Your task to perform on an android device: change the clock display to digital Image 0: 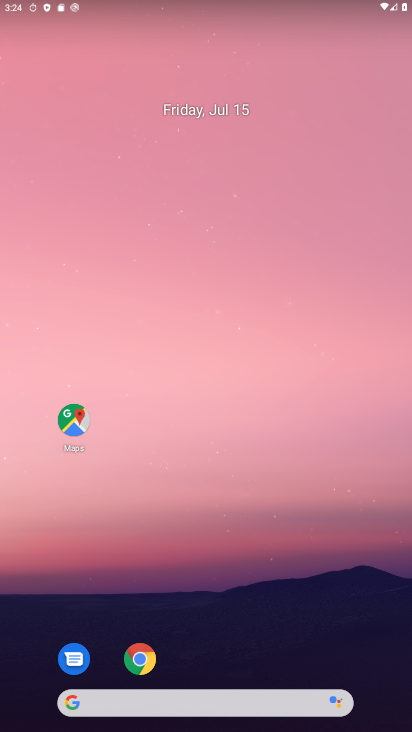
Step 0: drag from (246, 638) to (249, 4)
Your task to perform on an android device: change the clock display to digital Image 1: 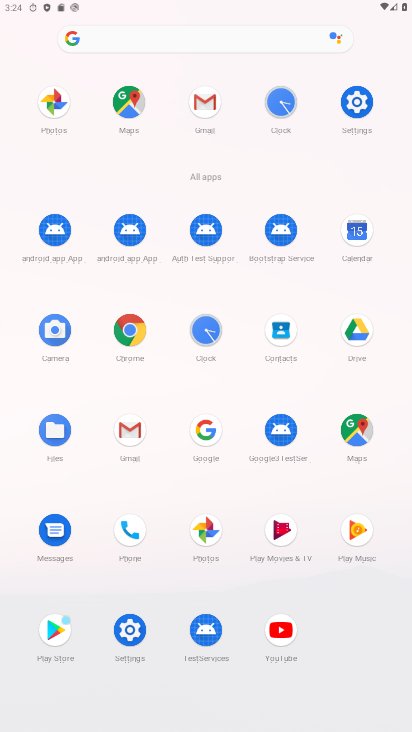
Step 1: click (202, 333)
Your task to perform on an android device: change the clock display to digital Image 2: 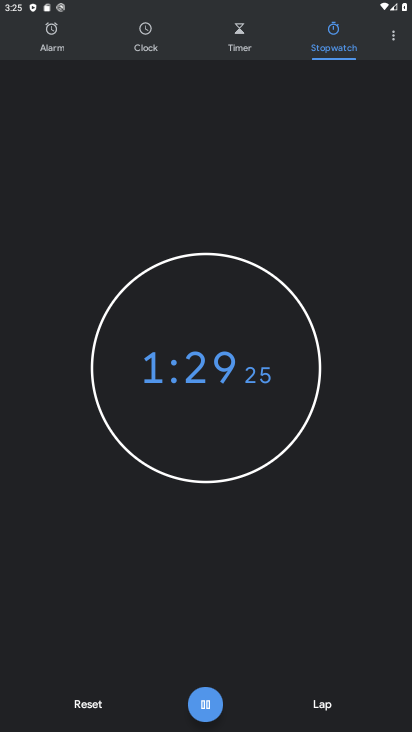
Step 2: click (395, 42)
Your task to perform on an android device: change the clock display to digital Image 3: 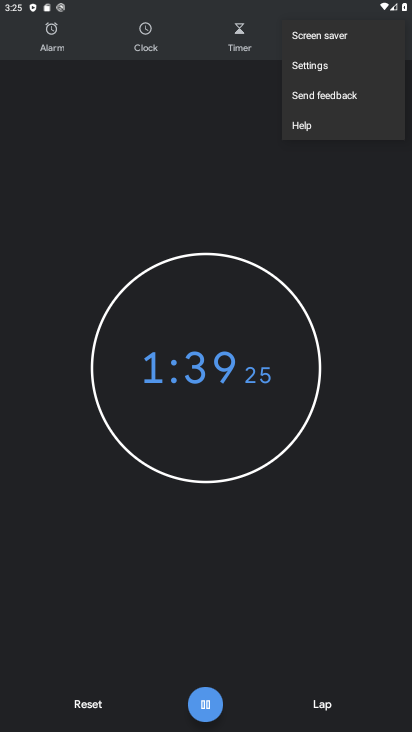
Step 3: click (318, 66)
Your task to perform on an android device: change the clock display to digital Image 4: 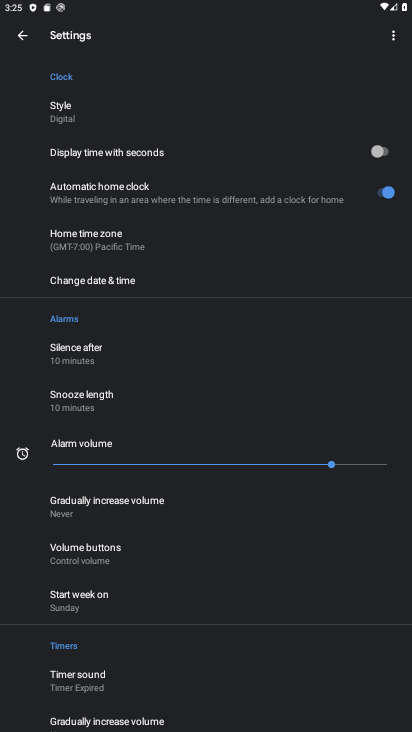
Step 4: click (76, 120)
Your task to perform on an android device: change the clock display to digital Image 5: 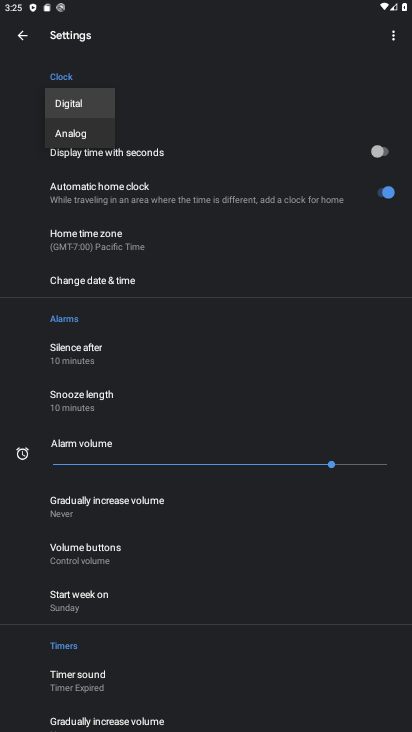
Step 5: click (70, 103)
Your task to perform on an android device: change the clock display to digital Image 6: 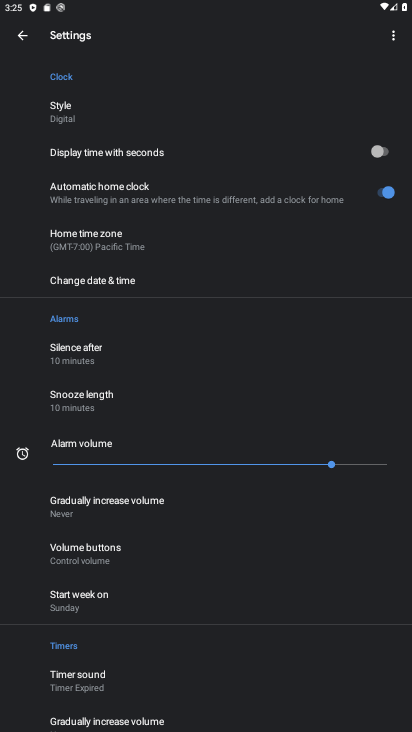
Step 6: task complete